Your task to perform on an android device: turn pop-ups off in chrome Image 0: 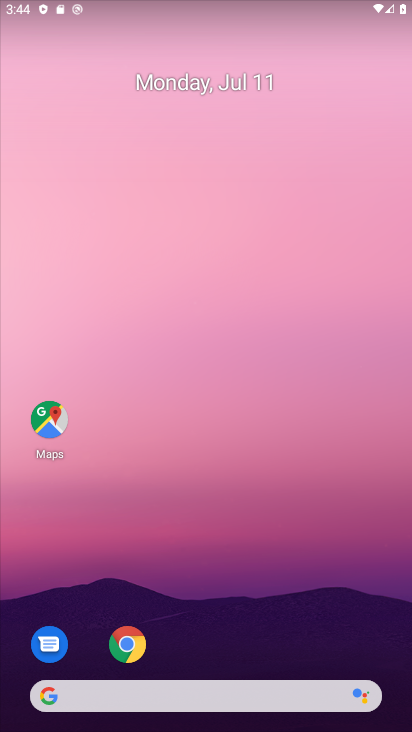
Step 0: press home button
Your task to perform on an android device: turn pop-ups off in chrome Image 1: 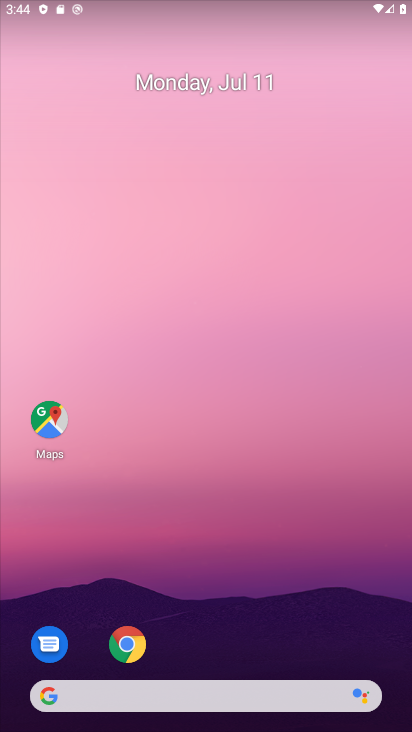
Step 1: click (124, 641)
Your task to perform on an android device: turn pop-ups off in chrome Image 2: 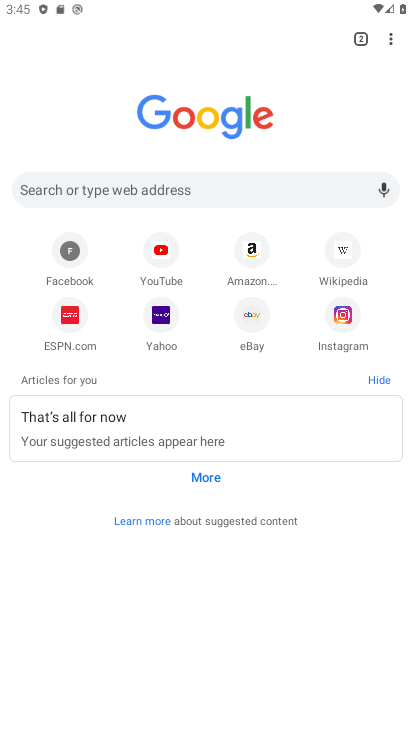
Step 2: click (391, 41)
Your task to perform on an android device: turn pop-ups off in chrome Image 3: 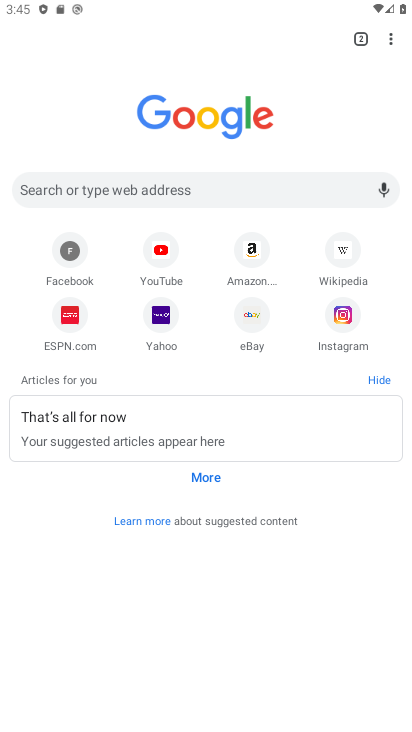
Step 3: click (385, 40)
Your task to perform on an android device: turn pop-ups off in chrome Image 4: 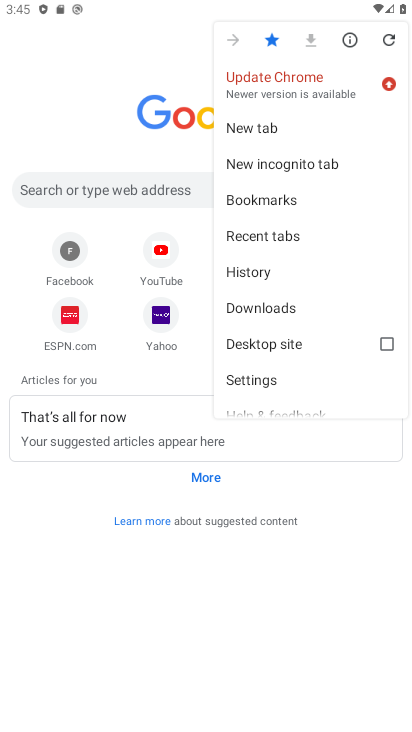
Step 4: click (280, 378)
Your task to perform on an android device: turn pop-ups off in chrome Image 5: 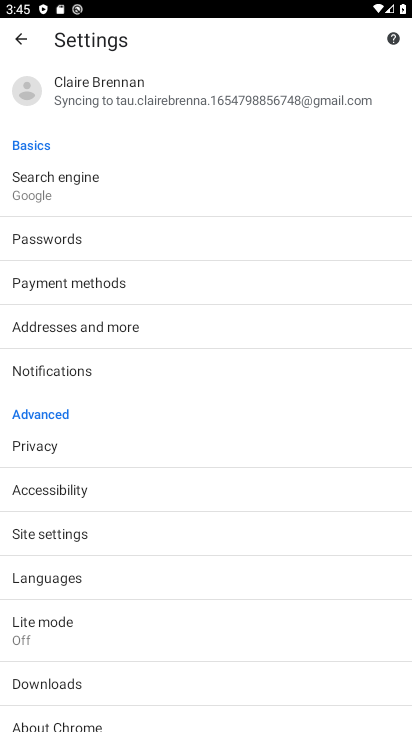
Step 5: click (90, 531)
Your task to perform on an android device: turn pop-ups off in chrome Image 6: 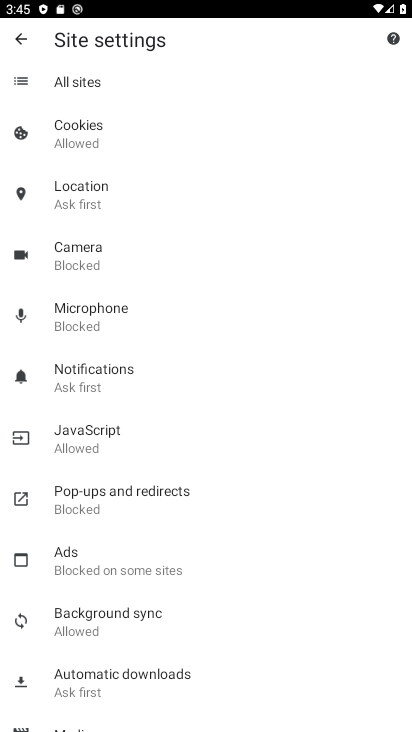
Step 6: click (113, 498)
Your task to perform on an android device: turn pop-ups off in chrome Image 7: 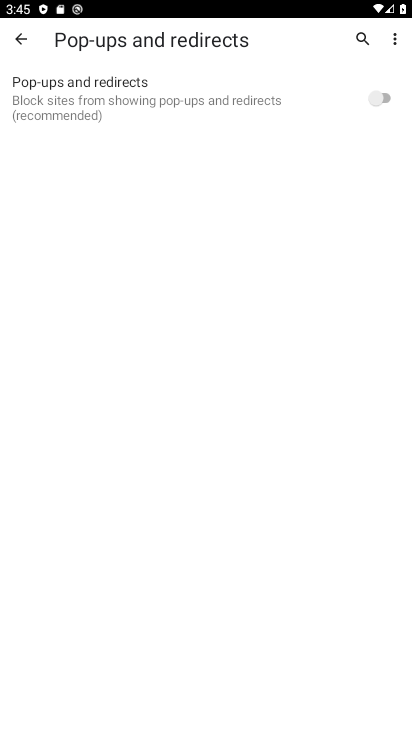
Step 7: task complete